Your task to perform on an android device: Search for "amazon basics triple a" on amazon.com, select the first entry, and add it to the cart. Image 0: 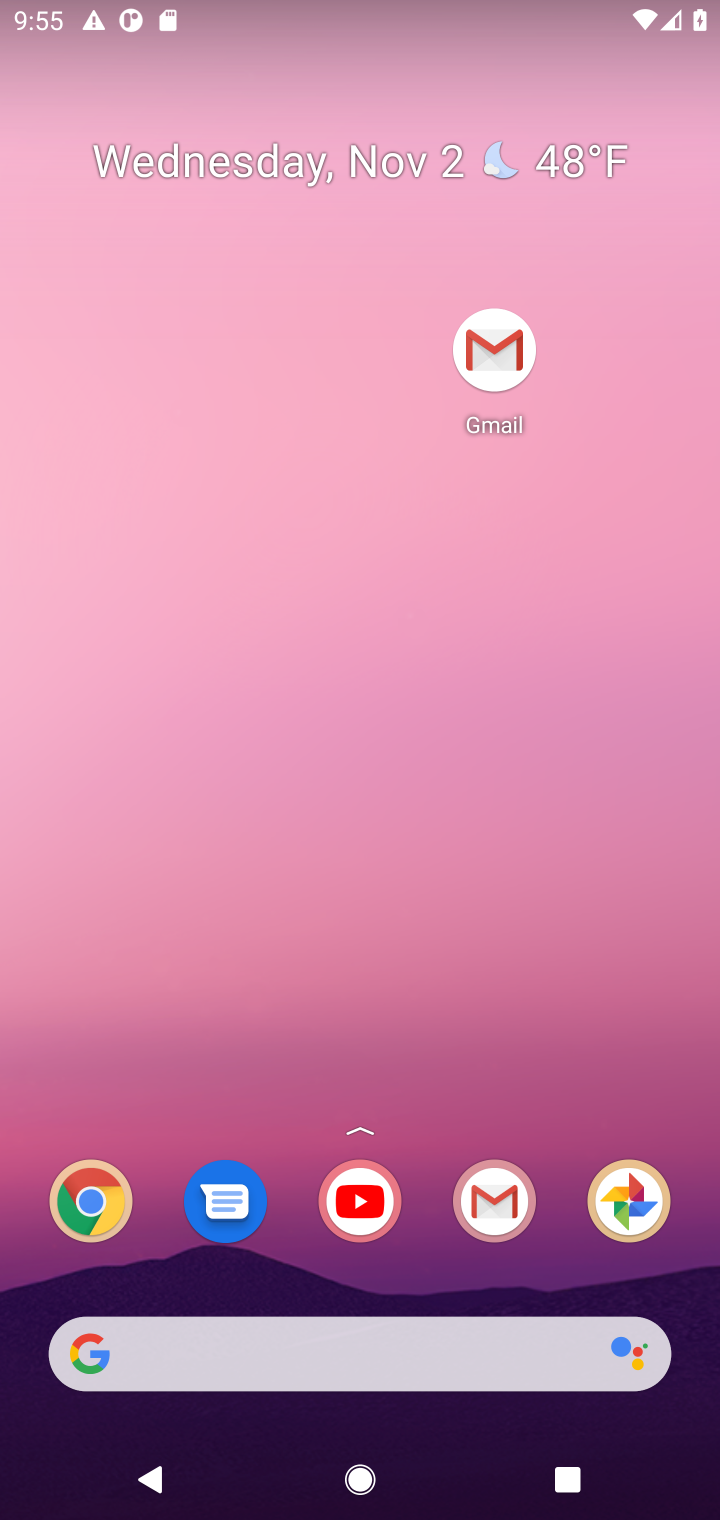
Step 0: click (400, 1279)
Your task to perform on an android device: Search for "amazon basics triple a" on amazon.com, select the first entry, and add it to the cart. Image 1: 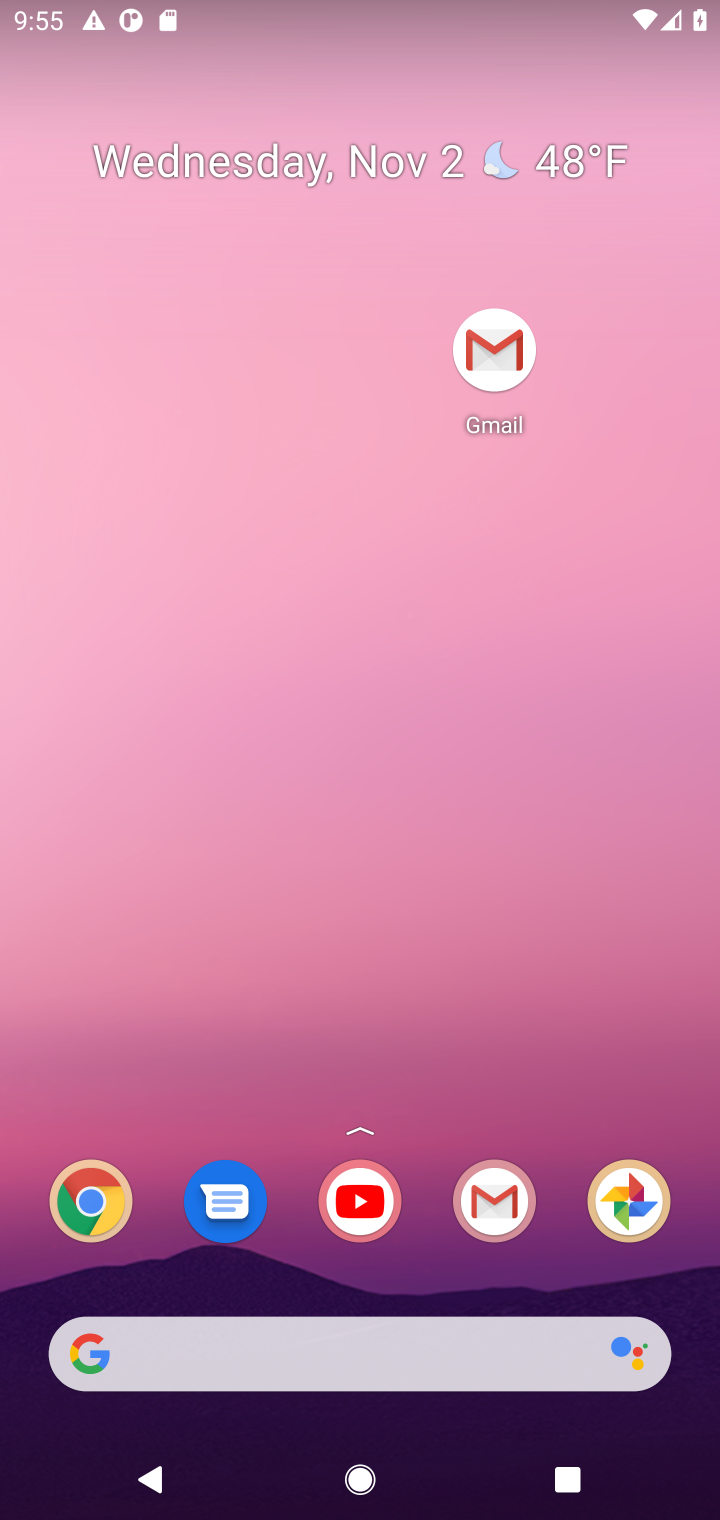
Step 1: drag from (422, 1302) to (382, 154)
Your task to perform on an android device: Search for "amazon basics triple a" on amazon.com, select the first entry, and add it to the cart. Image 2: 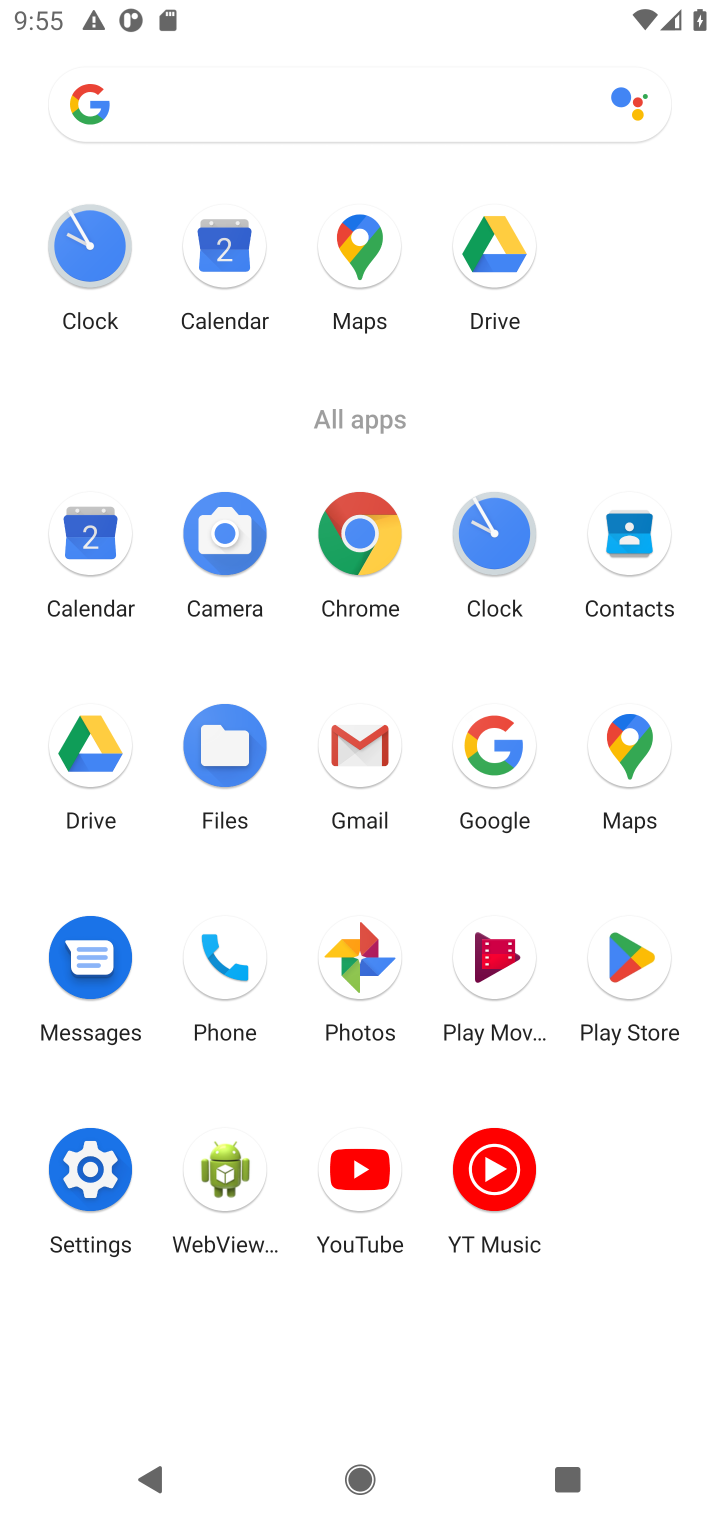
Step 2: click (359, 532)
Your task to perform on an android device: Search for "amazon basics triple a" on amazon.com, select the first entry, and add it to the cart. Image 3: 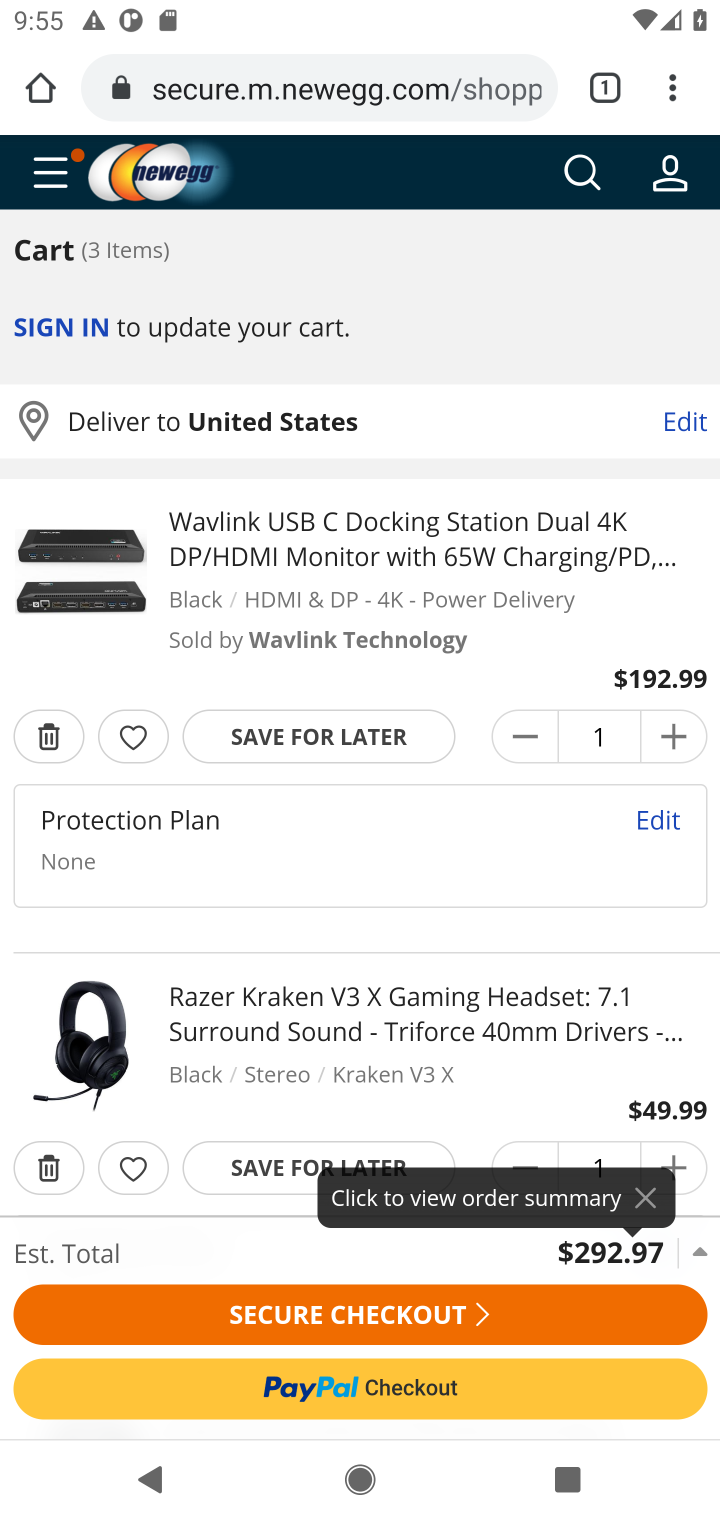
Step 3: click (351, 90)
Your task to perform on an android device: Search for "amazon basics triple a" on amazon.com, select the first entry, and add it to the cart. Image 4: 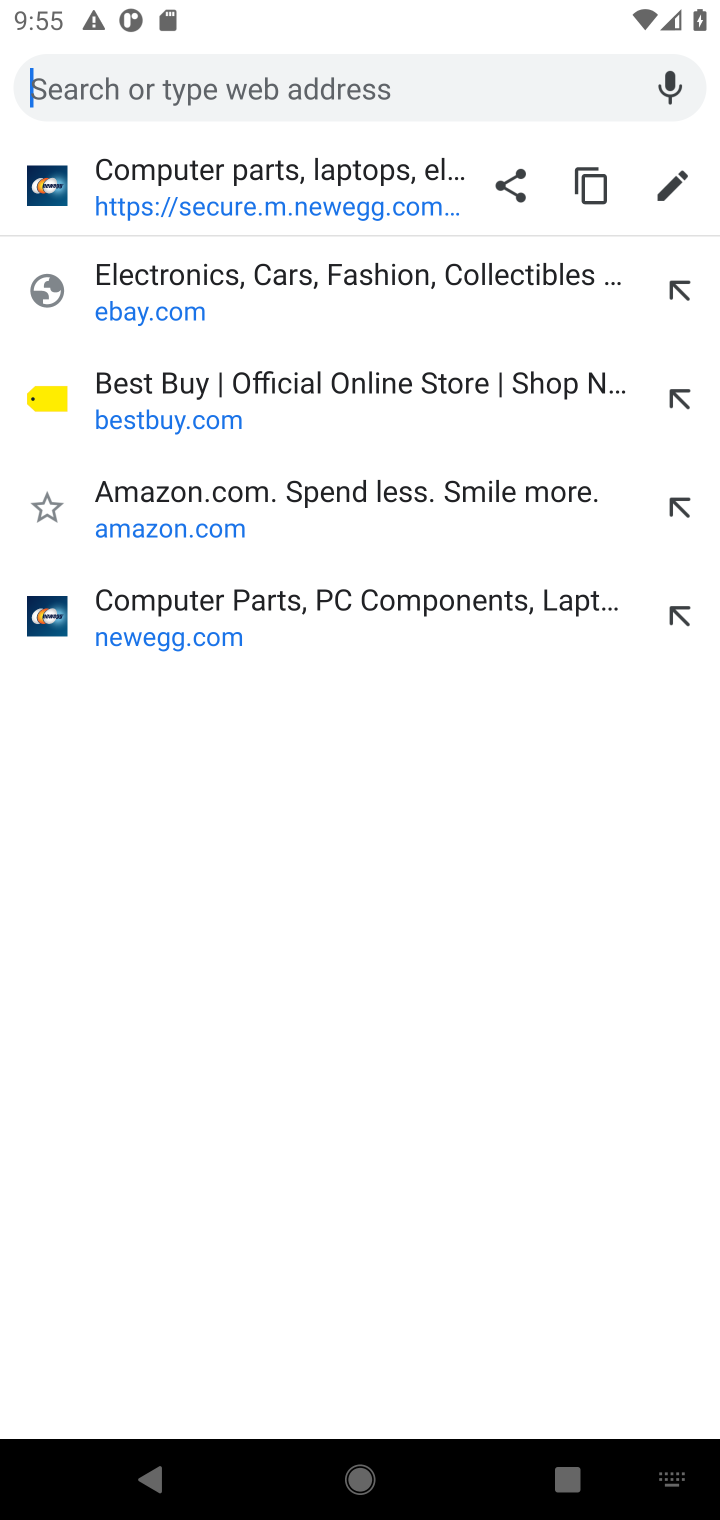
Step 4: type "amazon.com"
Your task to perform on an android device: Search for "amazon basics triple a" on amazon.com, select the first entry, and add it to the cart. Image 5: 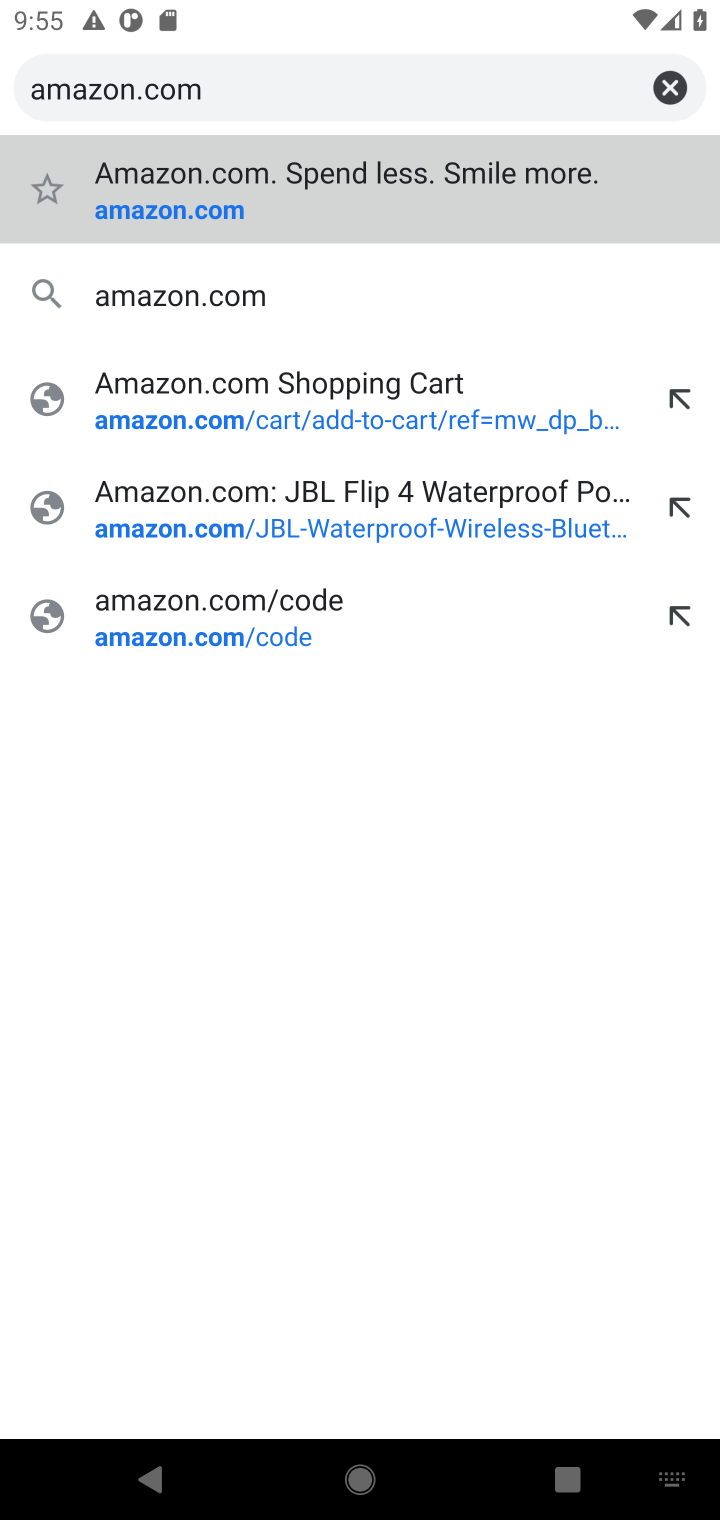
Step 5: press enter
Your task to perform on an android device: Search for "amazon basics triple a" on amazon.com, select the first entry, and add it to the cart. Image 6: 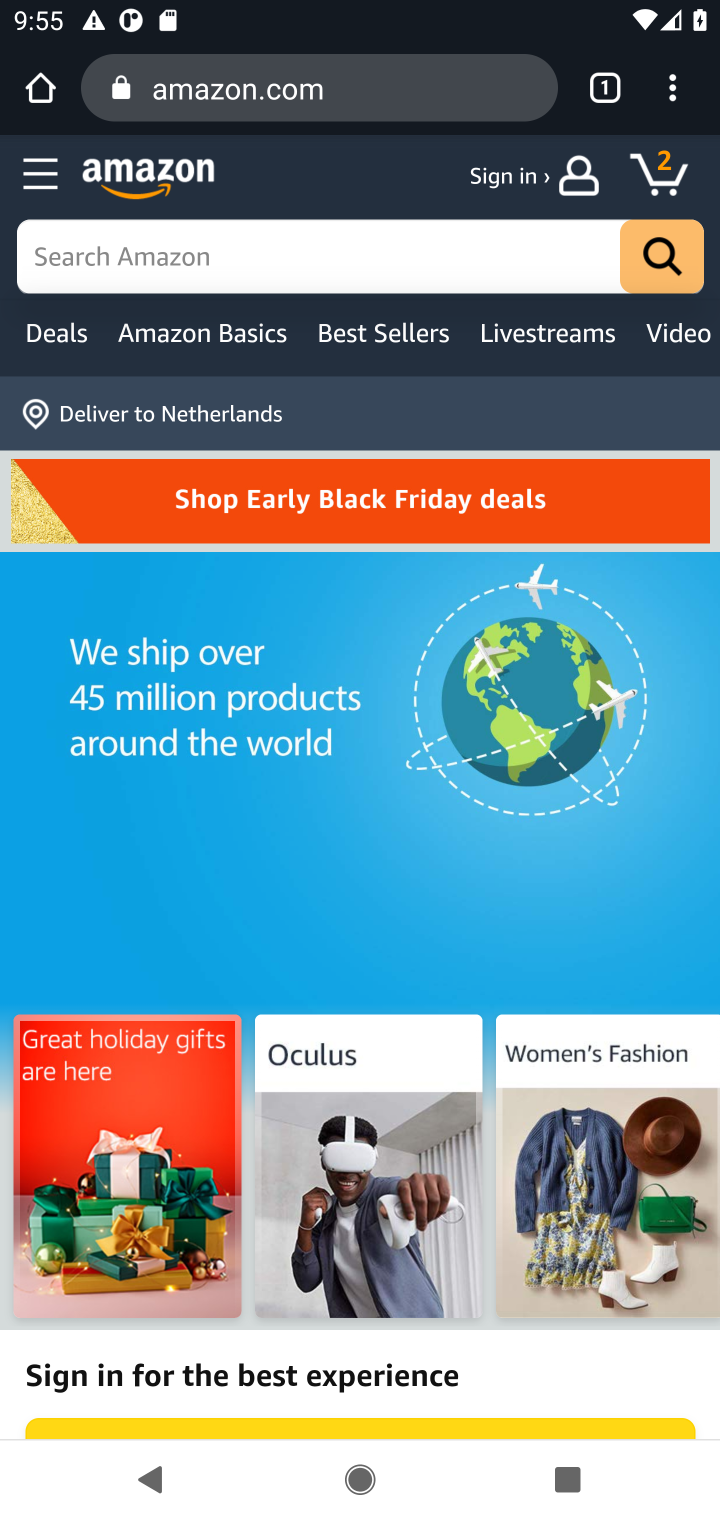
Step 6: click (448, 256)
Your task to perform on an android device: Search for "amazon basics triple a" on amazon.com, select the first entry, and add it to the cart. Image 7: 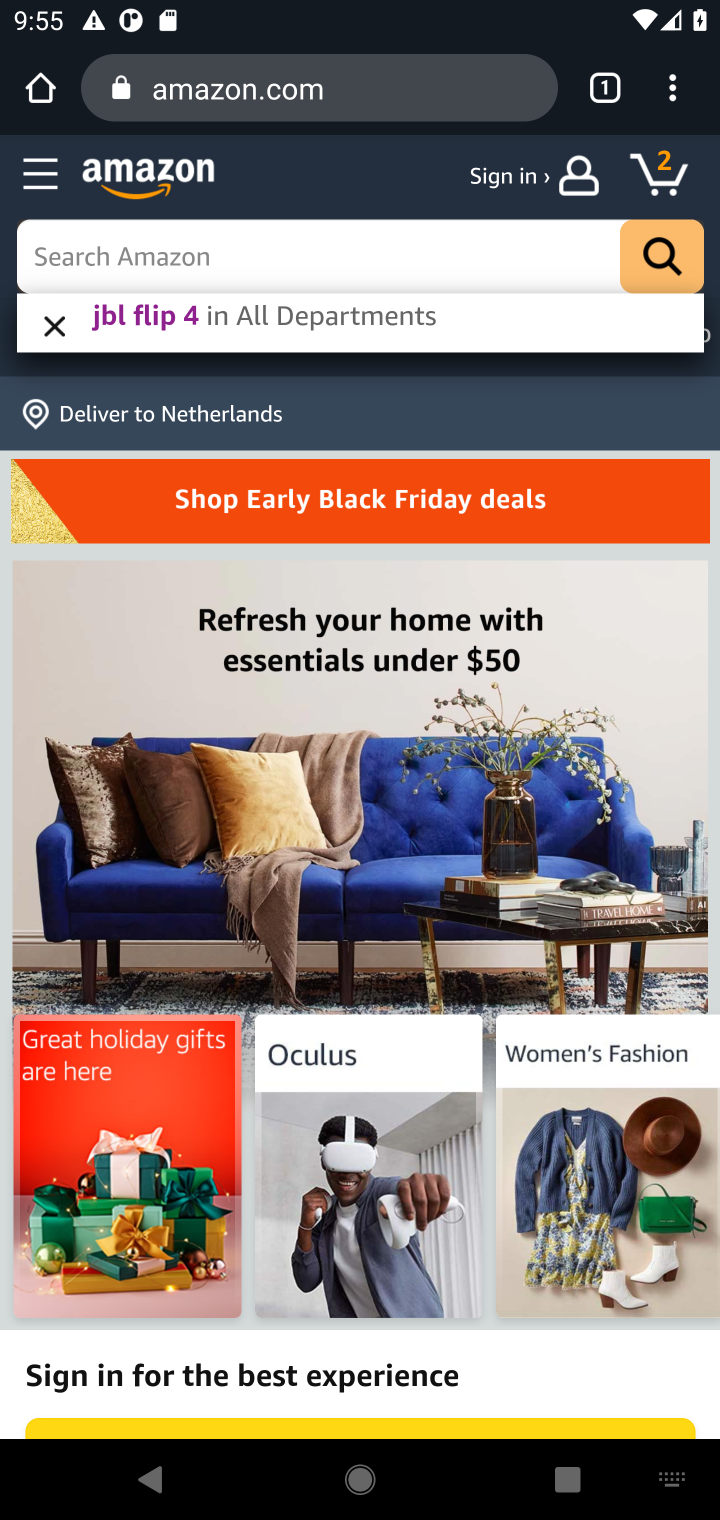
Step 7: type "amazon basic triple a"
Your task to perform on an android device: Search for "amazon basics triple a" on amazon.com, select the first entry, and add it to the cart. Image 8: 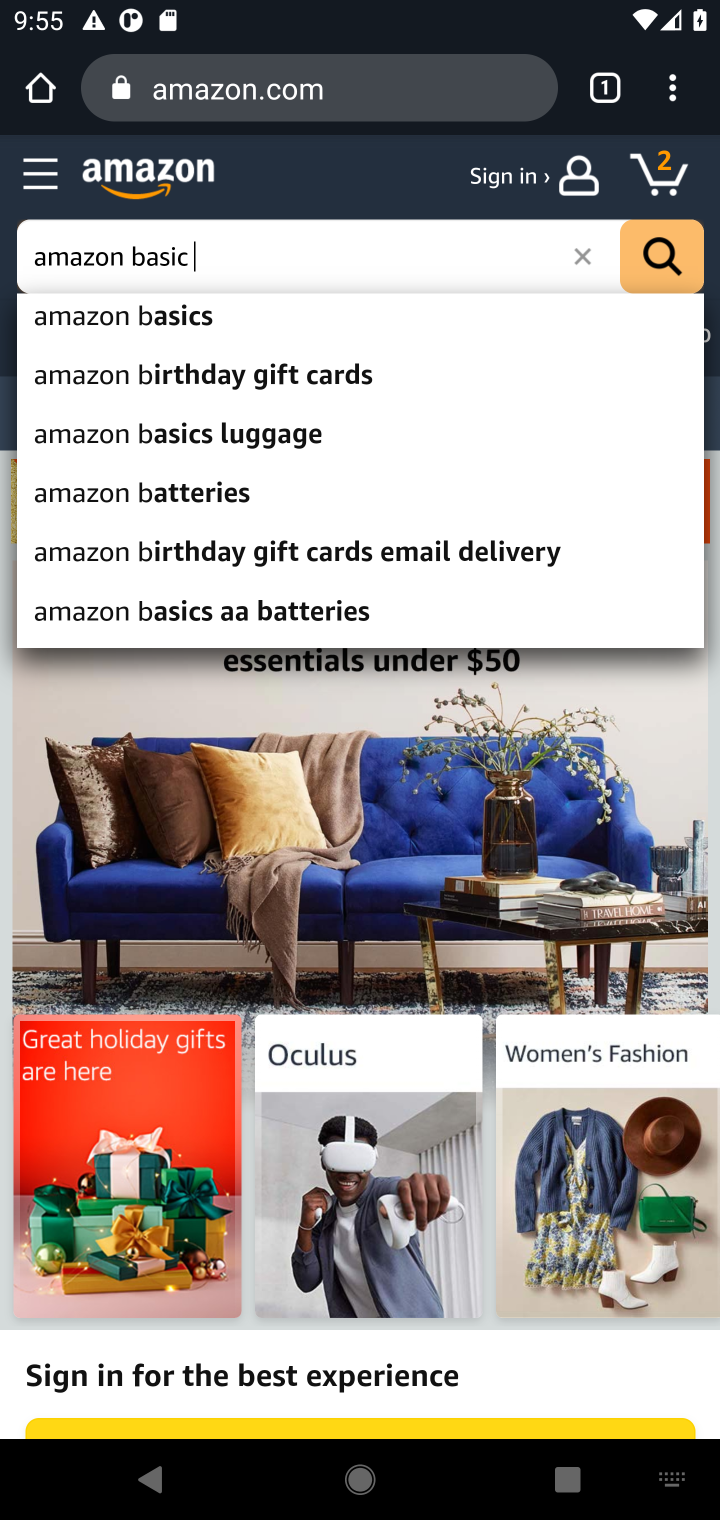
Step 8: press enter
Your task to perform on an android device: Search for "amazon basics triple a" on amazon.com, select the first entry, and add it to the cart. Image 9: 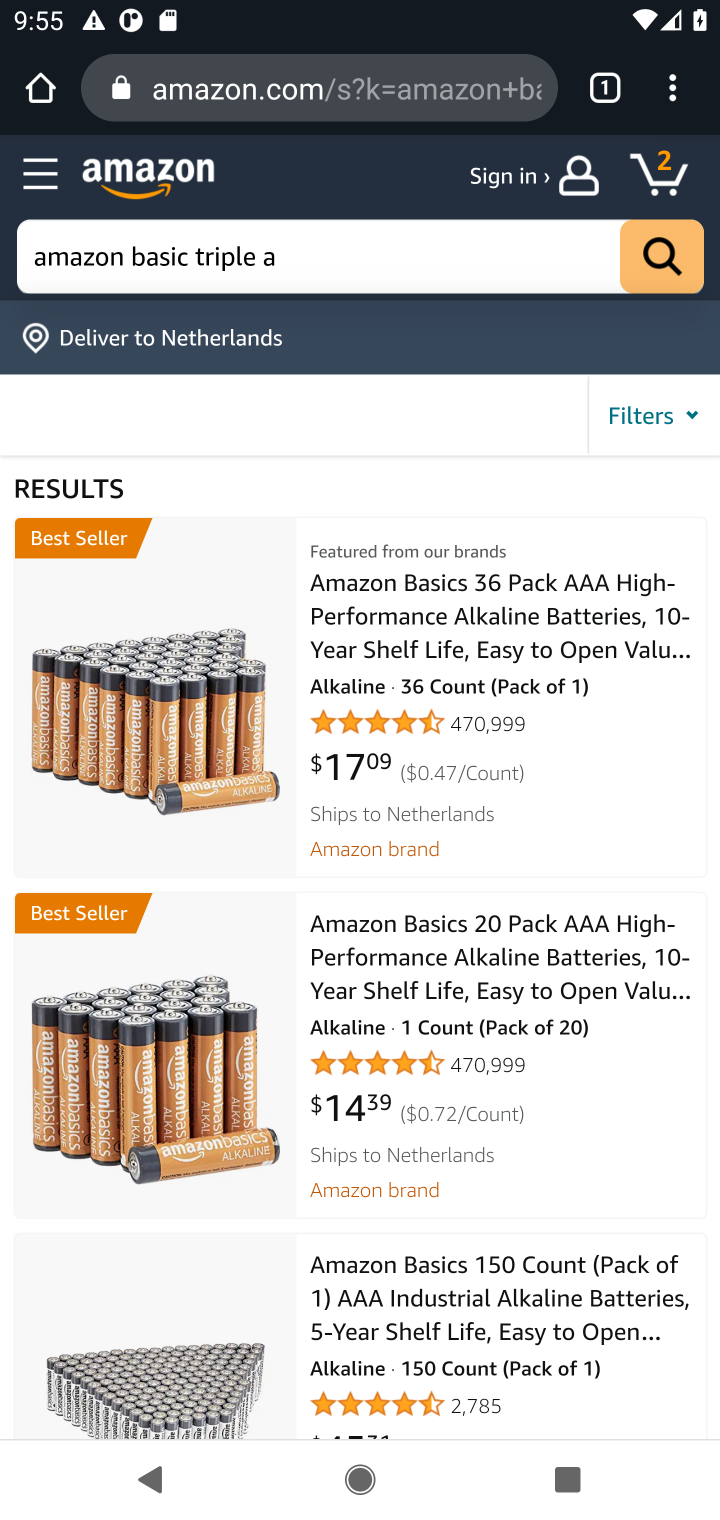
Step 9: click (522, 955)
Your task to perform on an android device: Search for "amazon basics triple a" on amazon.com, select the first entry, and add it to the cart. Image 10: 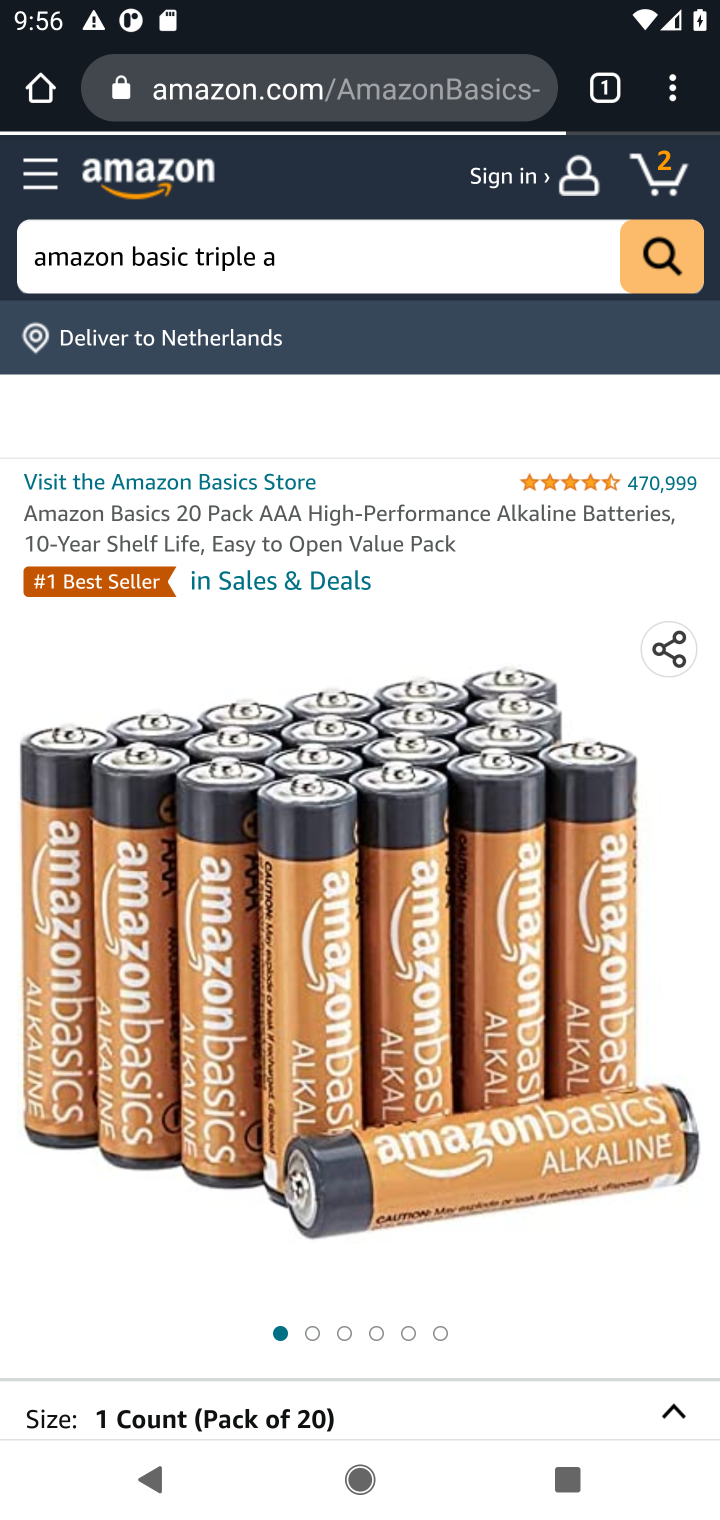
Step 10: drag from (331, 850) to (416, 166)
Your task to perform on an android device: Search for "amazon basics triple a" on amazon.com, select the first entry, and add it to the cart. Image 11: 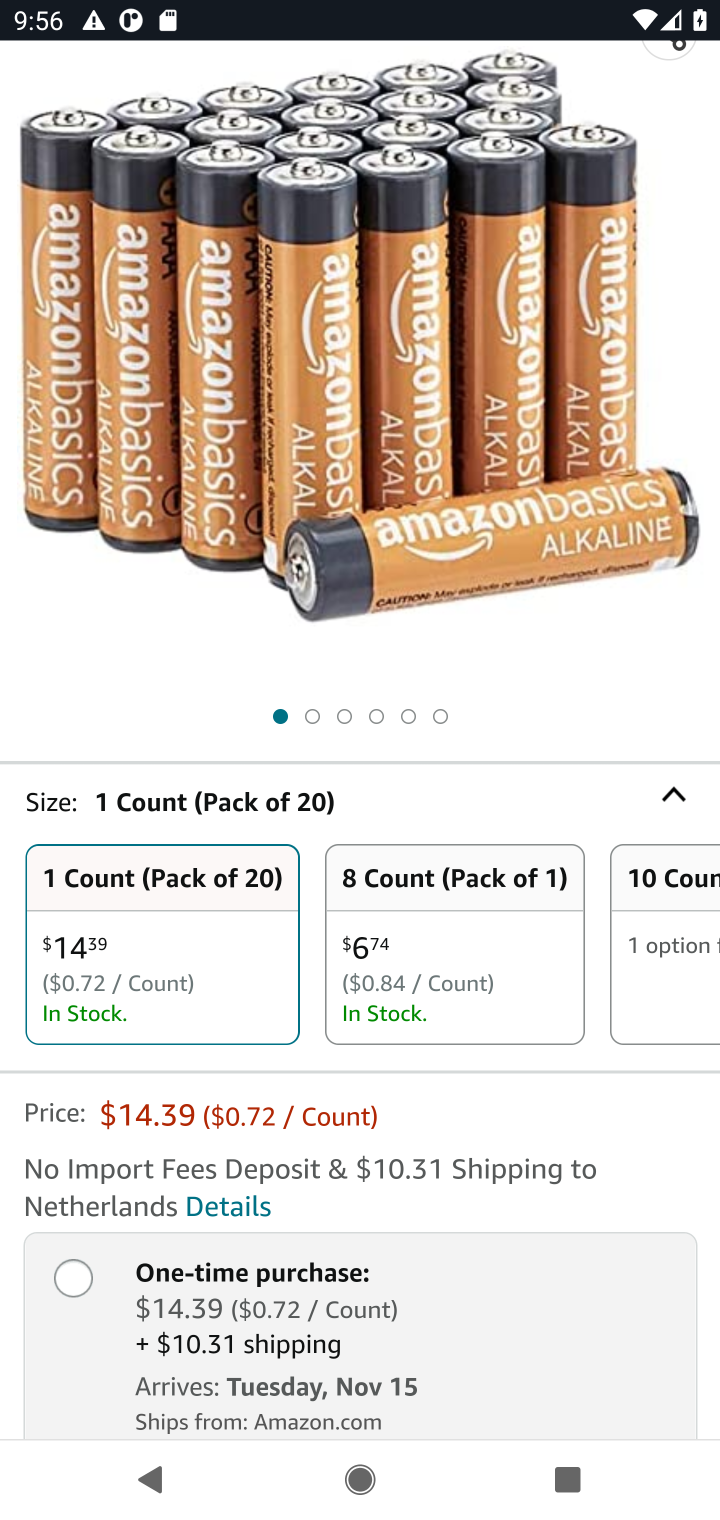
Step 11: drag from (442, 963) to (524, 240)
Your task to perform on an android device: Search for "amazon basics triple a" on amazon.com, select the first entry, and add it to the cart. Image 12: 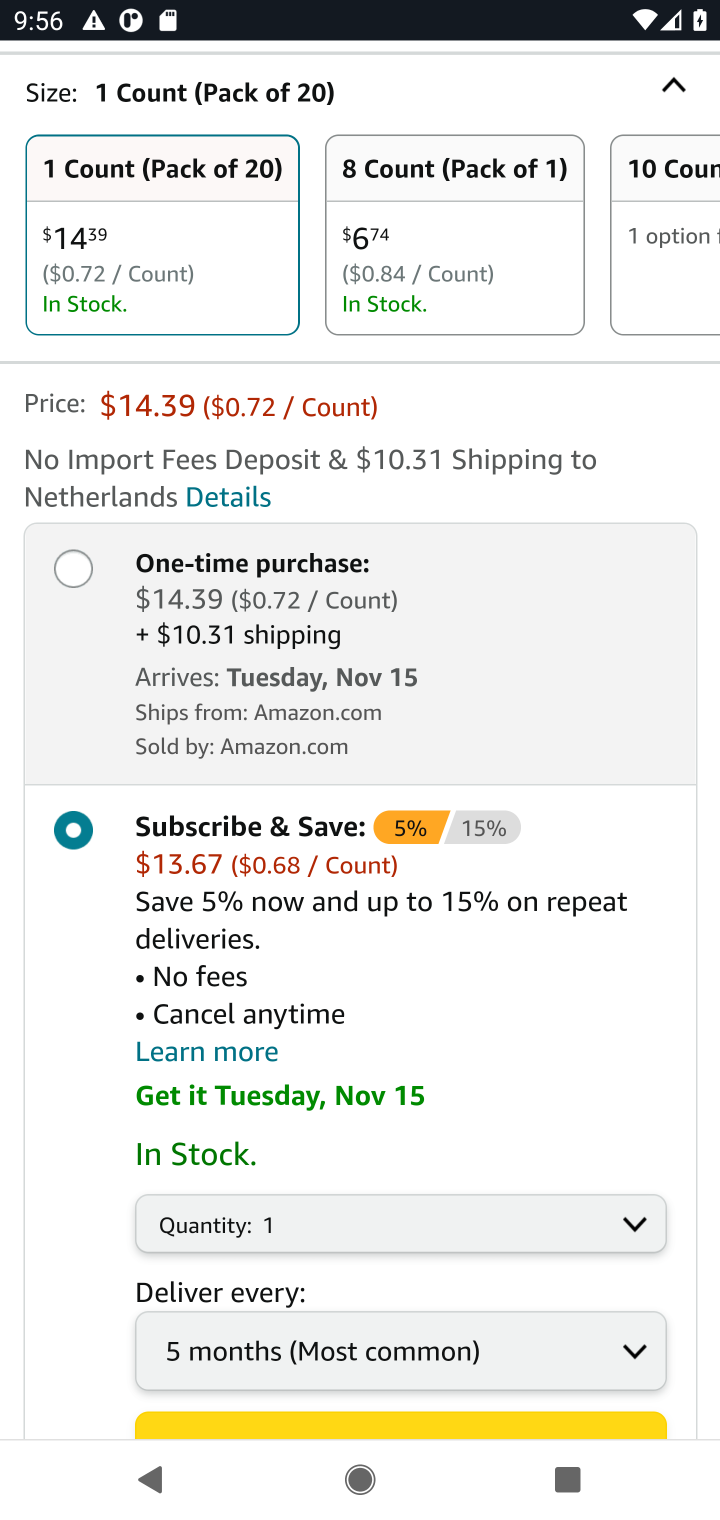
Step 12: drag from (382, 1098) to (394, 398)
Your task to perform on an android device: Search for "amazon basics triple a" on amazon.com, select the first entry, and add it to the cart. Image 13: 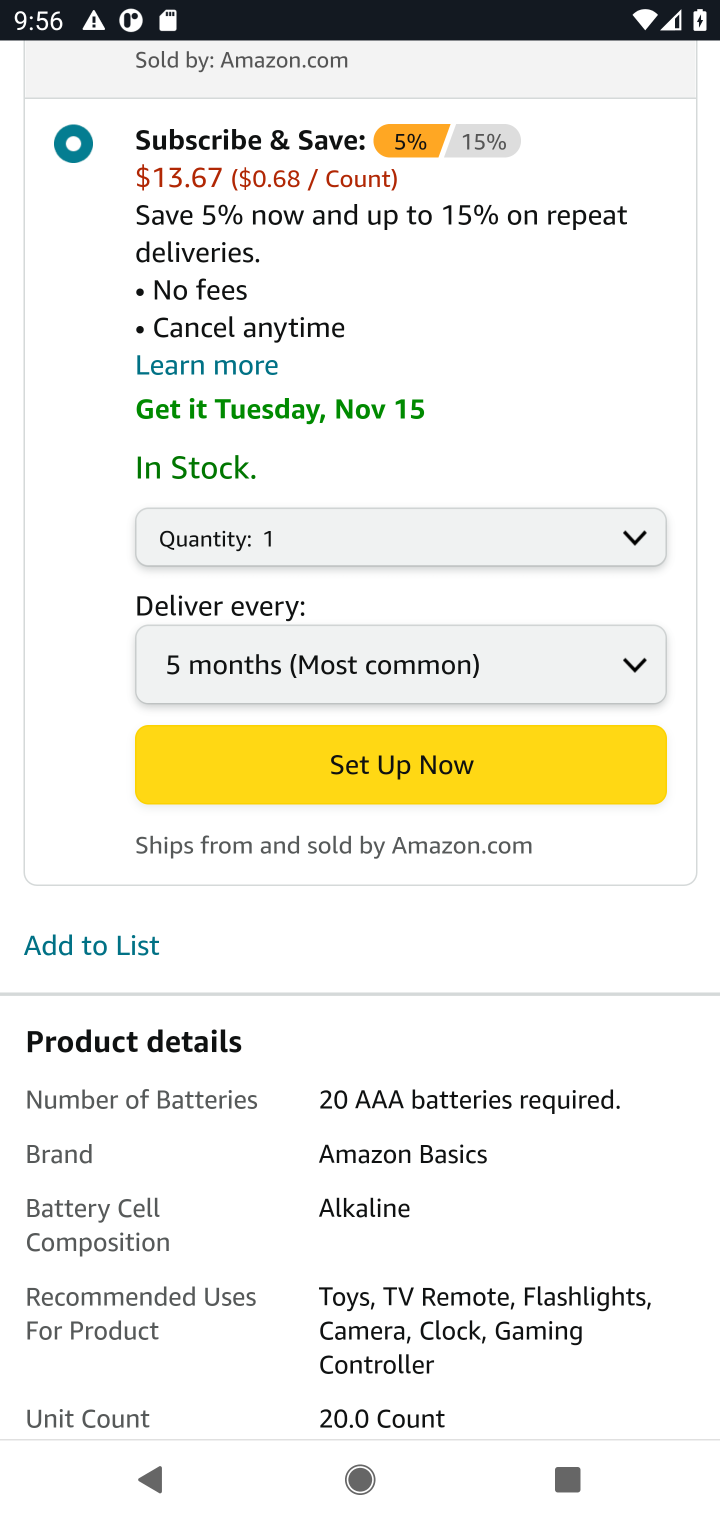
Step 13: drag from (328, 284) to (270, 749)
Your task to perform on an android device: Search for "amazon basics triple a" on amazon.com, select the first entry, and add it to the cart. Image 14: 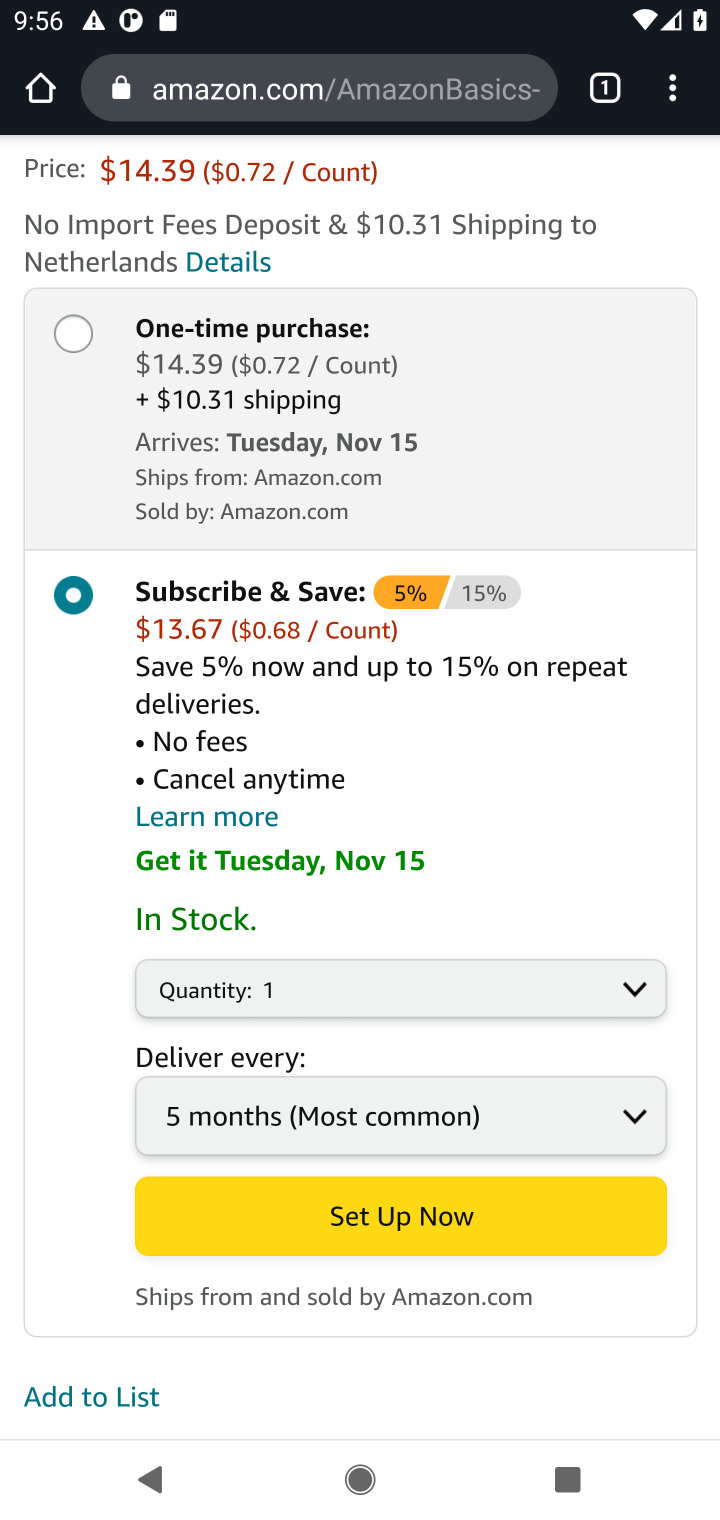
Step 14: click (87, 328)
Your task to perform on an android device: Search for "amazon basics triple a" on amazon.com, select the first entry, and add it to the cart. Image 15: 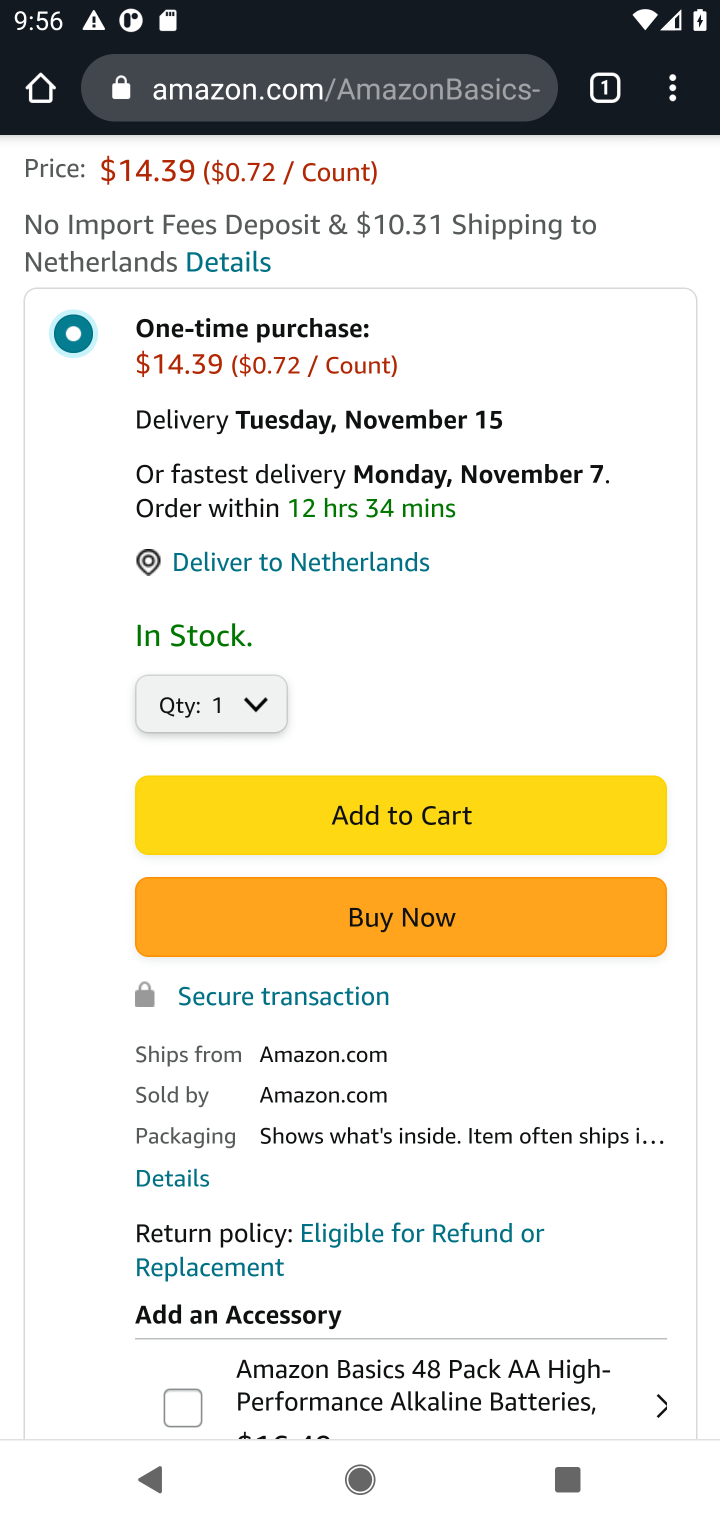
Step 15: click (495, 813)
Your task to perform on an android device: Search for "amazon basics triple a" on amazon.com, select the first entry, and add it to the cart. Image 16: 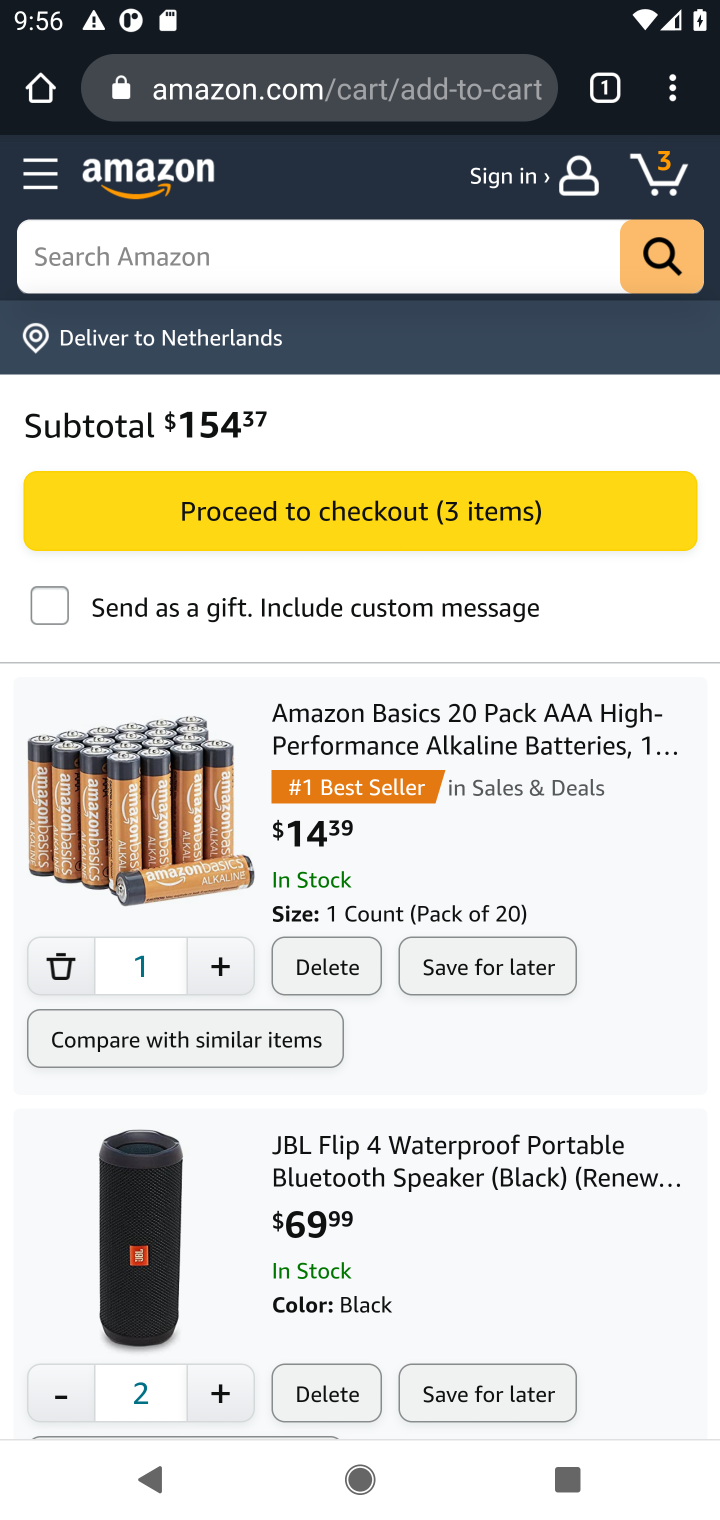
Step 16: task complete